Your task to perform on an android device: see tabs open on other devices in the chrome app Image 0: 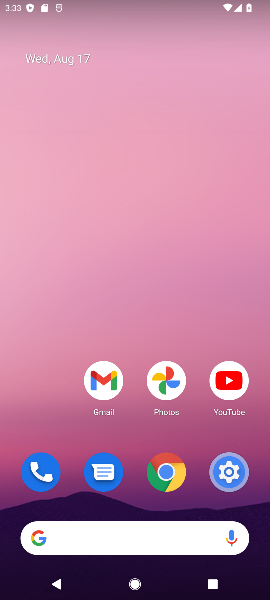
Step 0: click (173, 469)
Your task to perform on an android device: see tabs open on other devices in the chrome app Image 1: 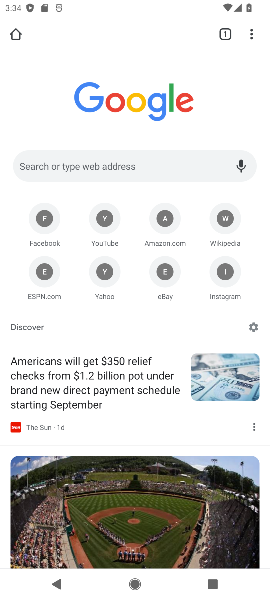
Step 1: click (250, 35)
Your task to perform on an android device: see tabs open on other devices in the chrome app Image 2: 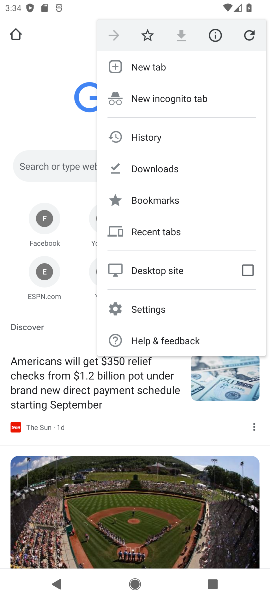
Step 2: click (174, 231)
Your task to perform on an android device: see tabs open on other devices in the chrome app Image 3: 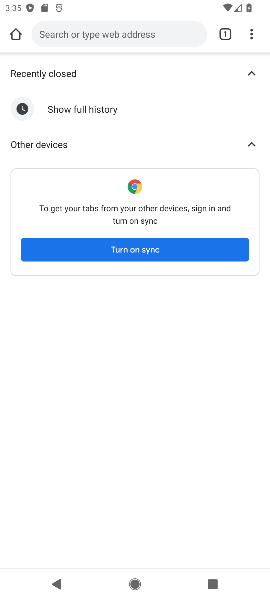
Step 3: task complete